Your task to perform on an android device: Turn off the flashlight Image 0: 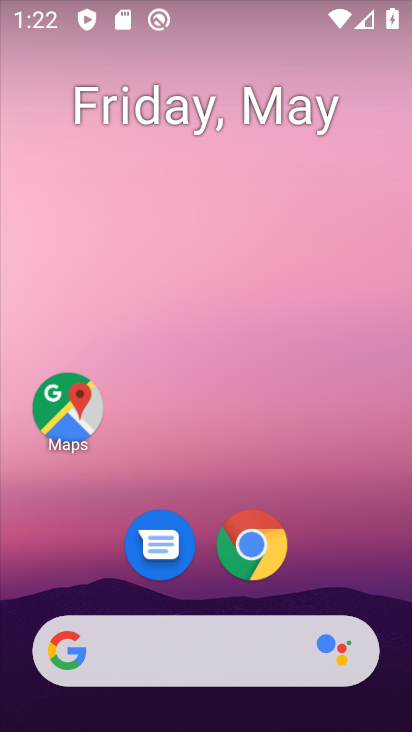
Step 0: drag from (339, 10) to (283, 436)
Your task to perform on an android device: Turn off the flashlight Image 1: 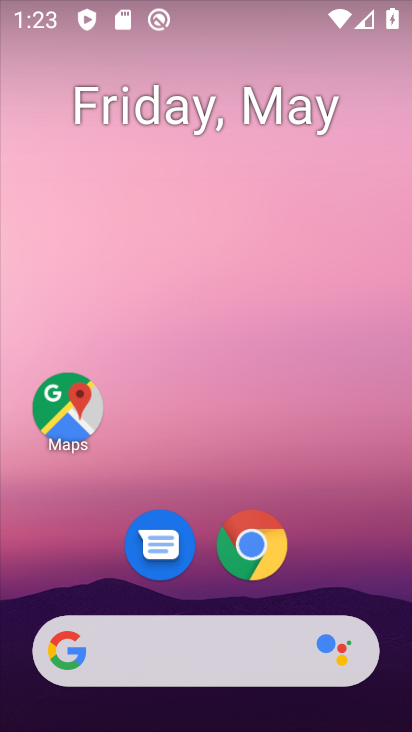
Step 1: drag from (216, 13) to (204, 391)
Your task to perform on an android device: Turn off the flashlight Image 2: 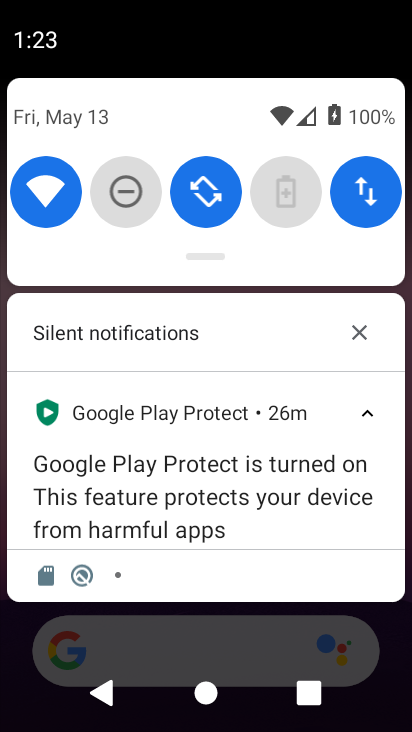
Step 2: drag from (256, 252) to (289, 591)
Your task to perform on an android device: Turn off the flashlight Image 3: 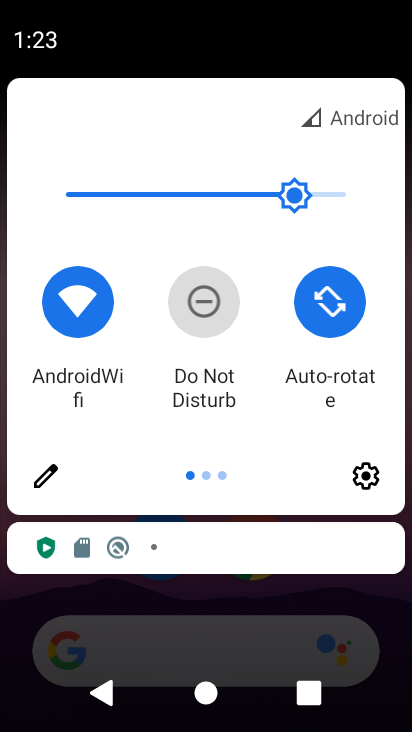
Step 3: click (44, 467)
Your task to perform on an android device: Turn off the flashlight Image 4: 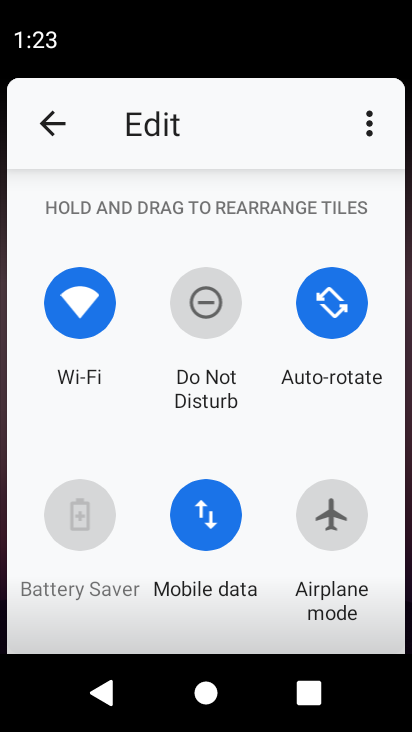
Step 4: task complete